Your task to perform on an android device: delete location history Image 0: 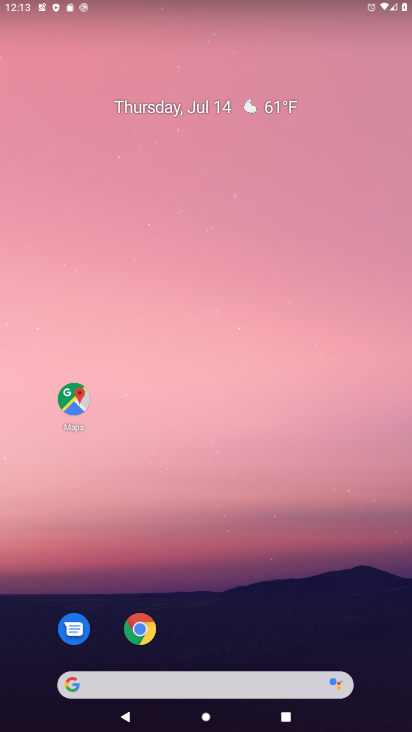
Step 0: click (72, 397)
Your task to perform on an android device: delete location history Image 1: 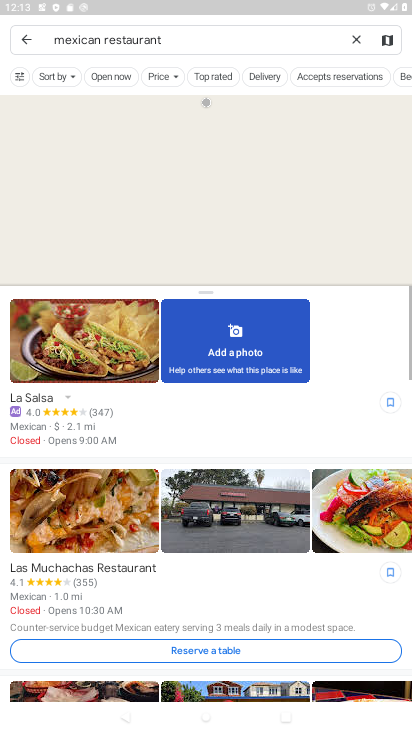
Step 1: click (23, 39)
Your task to perform on an android device: delete location history Image 2: 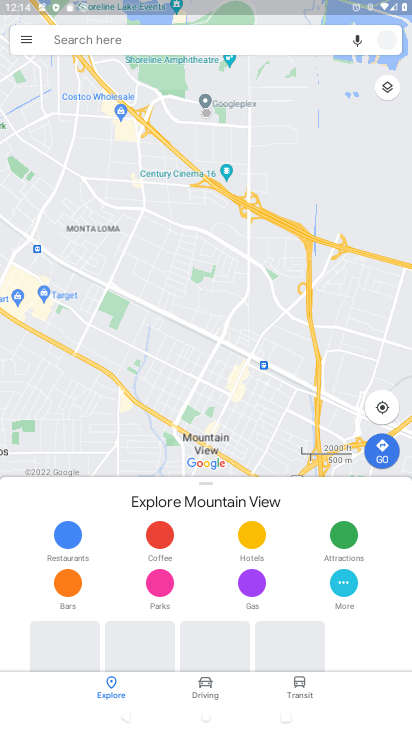
Step 2: click (25, 41)
Your task to perform on an android device: delete location history Image 3: 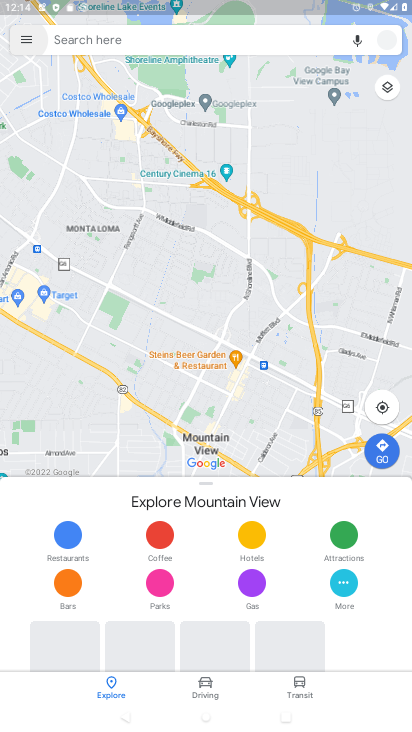
Step 3: click (25, 41)
Your task to perform on an android device: delete location history Image 4: 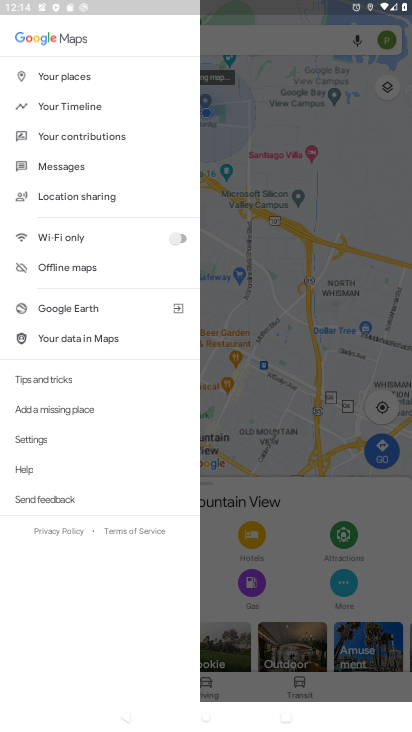
Step 4: click (79, 103)
Your task to perform on an android device: delete location history Image 5: 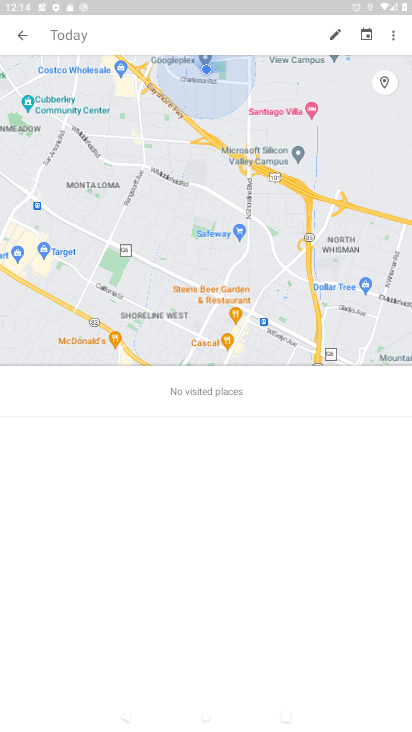
Step 5: click (394, 36)
Your task to perform on an android device: delete location history Image 6: 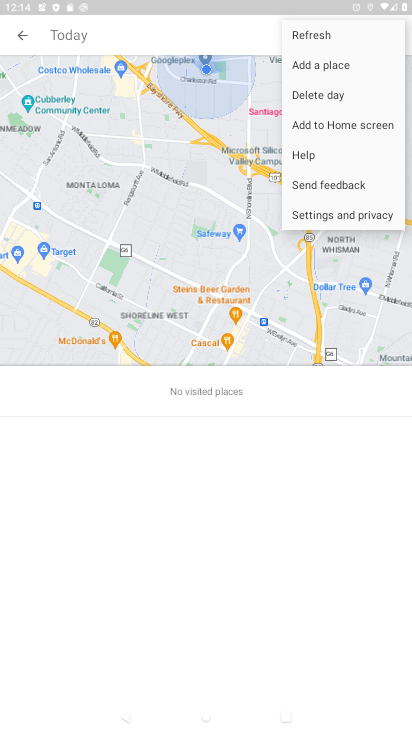
Step 6: click (344, 210)
Your task to perform on an android device: delete location history Image 7: 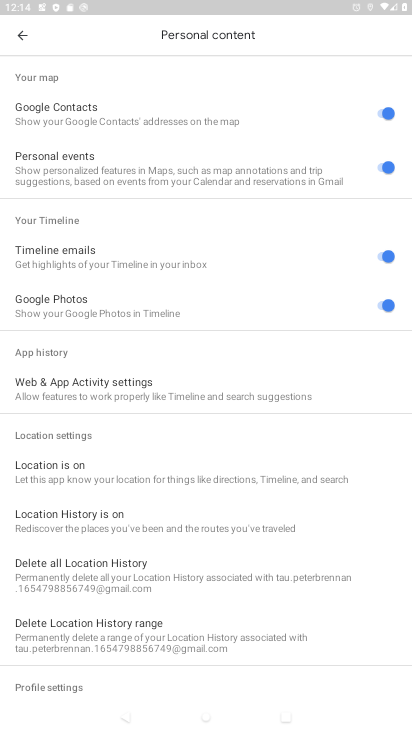
Step 7: click (79, 560)
Your task to perform on an android device: delete location history Image 8: 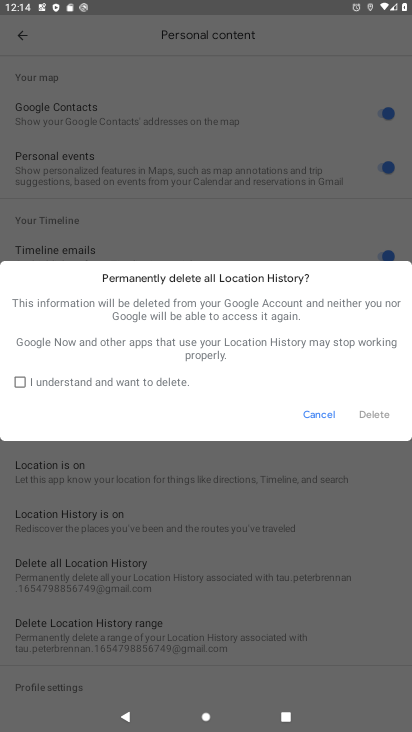
Step 8: click (17, 387)
Your task to perform on an android device: delete location history Image 9: 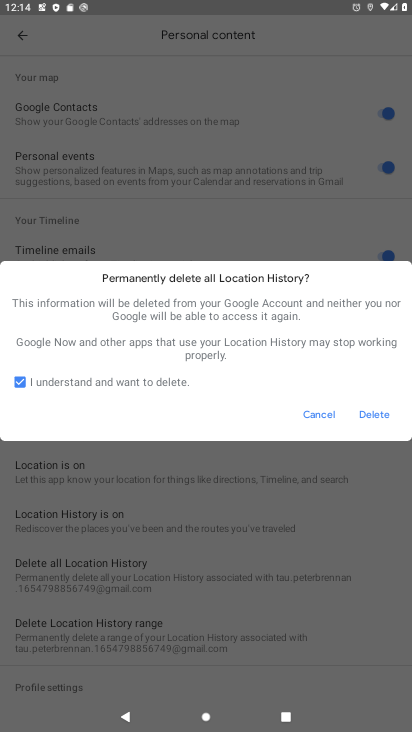
Step 9: click (374, 409)
Your task to perform on an android device: delete location history Image 10: 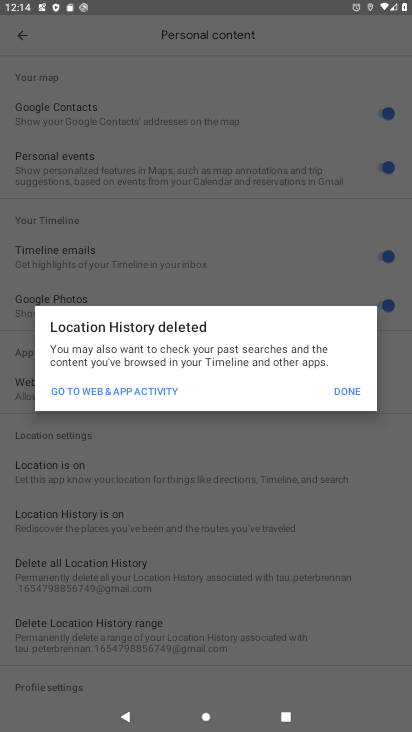
Step 10: click (341, 385)
Your task to perform on an android device: delete location history Image 11: 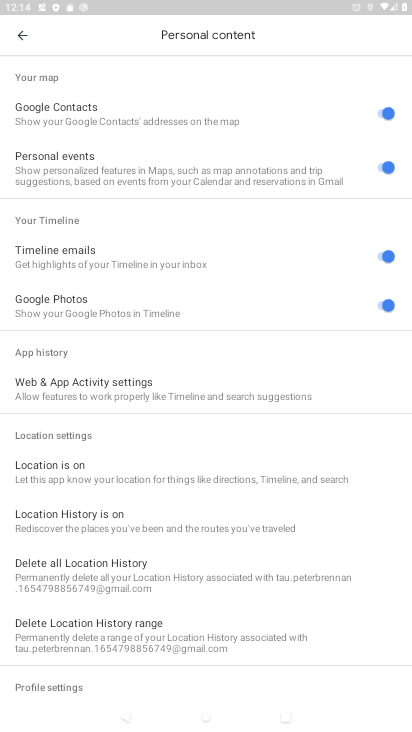
Step 11: task complete